Your task to perform on an android device: Go to Yahoo.com Image 0: 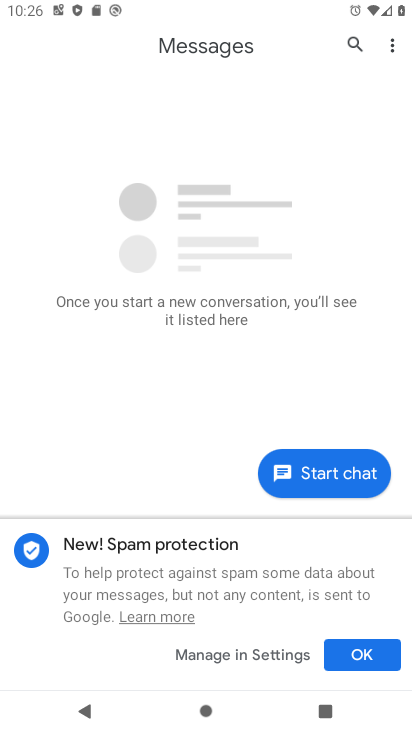
Step 0: press home button
Your task to perform on an android device: Go to Yahoo.com Image 1: 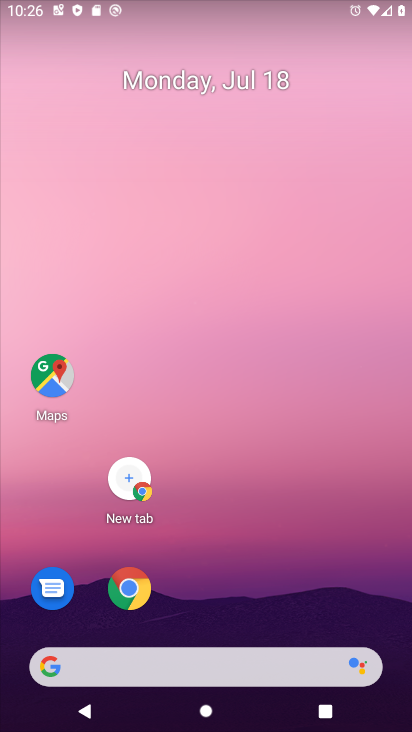
Step 1: click (129, 581)
Your task to perform on an android device: Go to Yahoo.com Image 2: 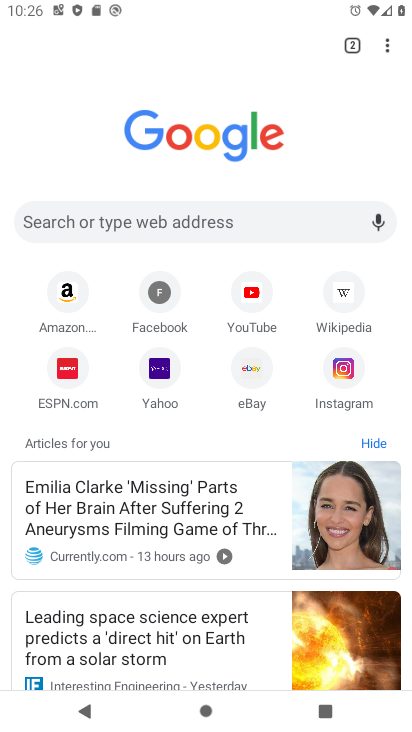
Step 2: click (161, 373)
Your task to perform on an android device: Go to Yahoo.com Image 3: 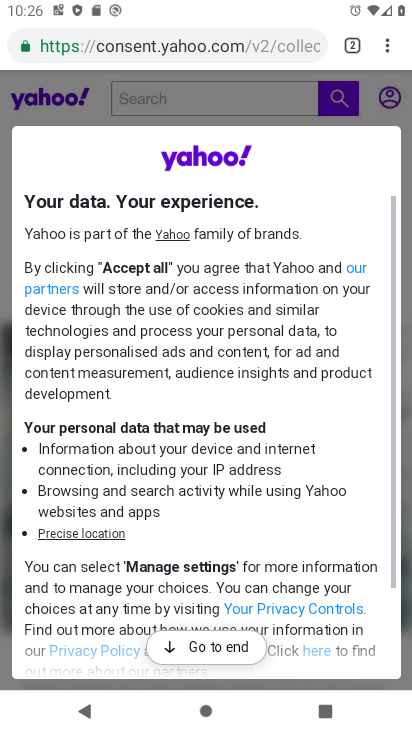
Step 3: task complete